Your task to perform on an android device: find snoozed emails in the gmail app Image 0: 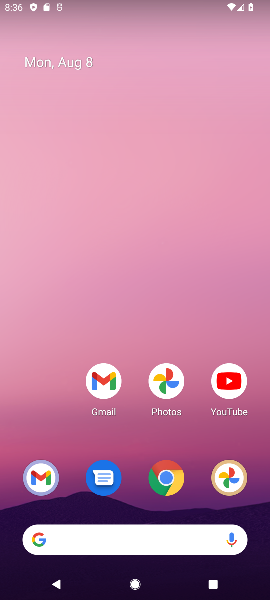
Step 0: press home button
Your task to perform on an android device: find snoozed emails in the gmail app Image 1: 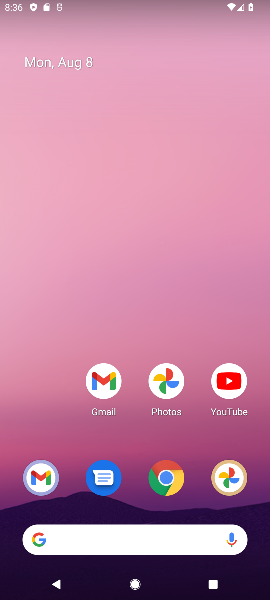
Step 1: click (106, 377)
Your task to perform on an android device: find snoozed emails in the gmail app Image 2: 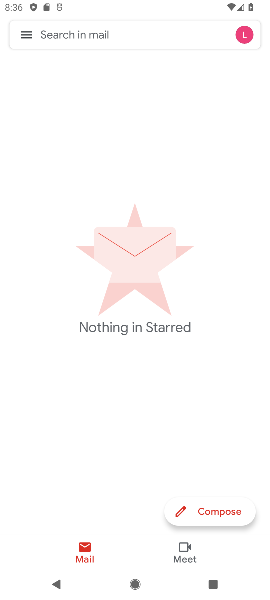
Step 2: click (26, 34)
Your task to perform on an android device: find snoozed emails in the gmail app Image 3: 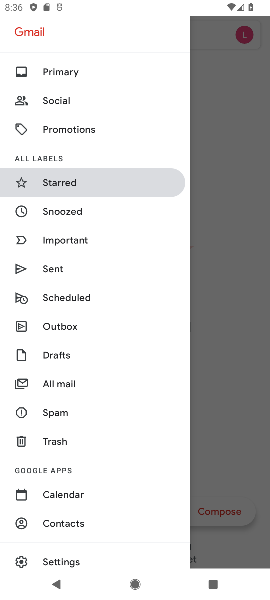
Step 3: click (63, 213)
Your task to perform on an android device: find snoozed emails in the gmail app Image 4: 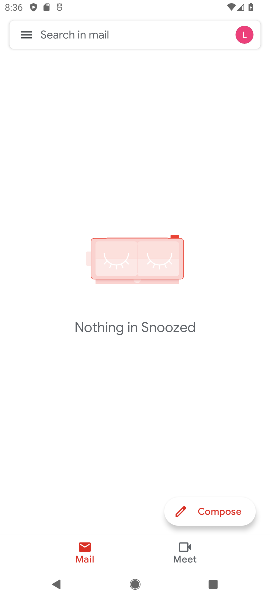
Step 4: task complete